Your task to perform on an android device: delete browsing data in the chrome app Image 0: 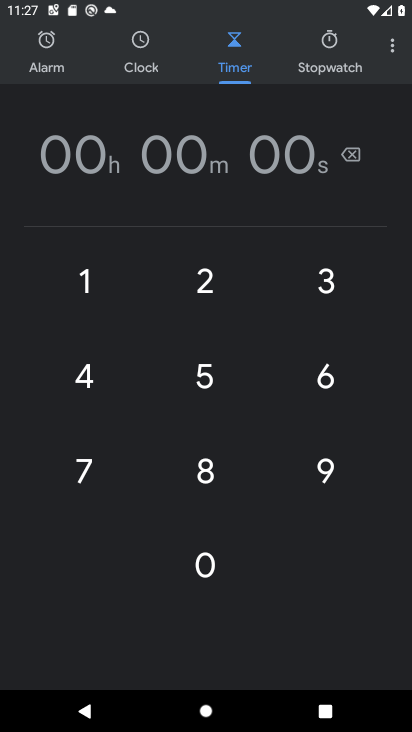
Step 0: press home button
Your task to perform on an android device: delete browsing data in the chrome app Image 1: 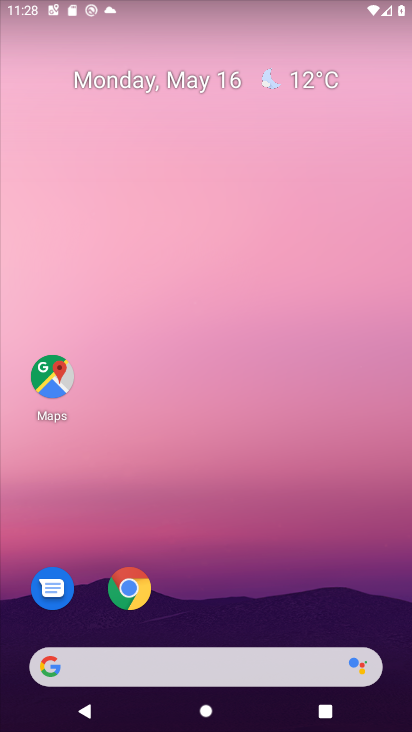
Step 1: click (127, 586)
Your task to perform on an android device: delete browsing data in the chrome app Image 2: 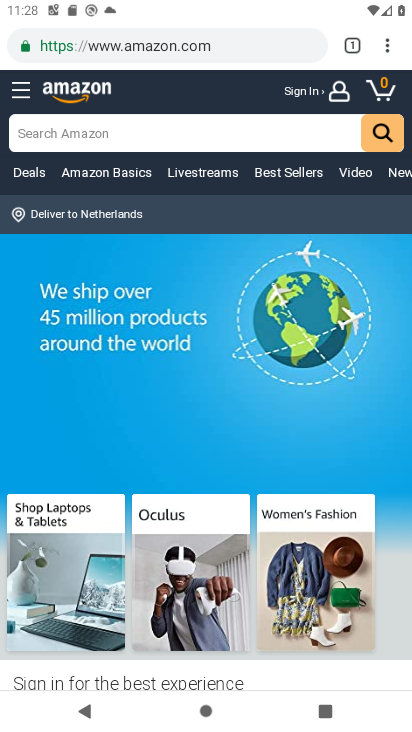
Step 2: click (388, 44)
Your task to perform on an android device: delete browsing data in the chrome app Image 3: 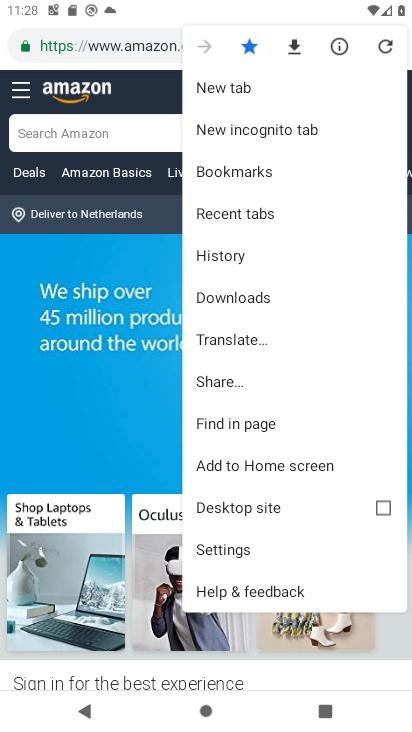
Step 3: click (256, 251)
Your task to perform on an android device: delete browsing data in the chrome app Image 4: 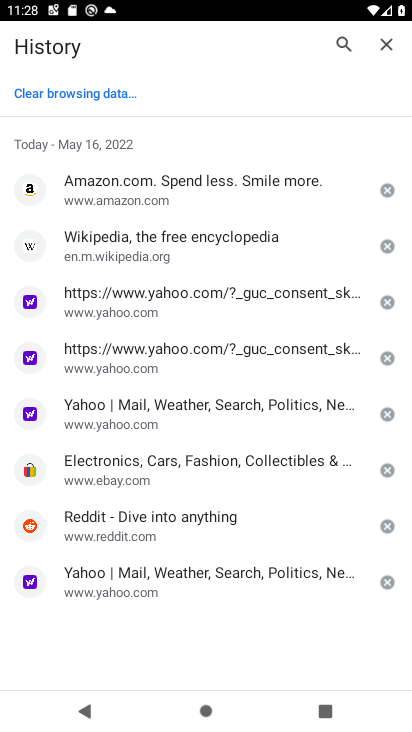
Step 4: click (94, 91)
Your task to perform on an android device: delete browsing data in the chrome app Image 5: 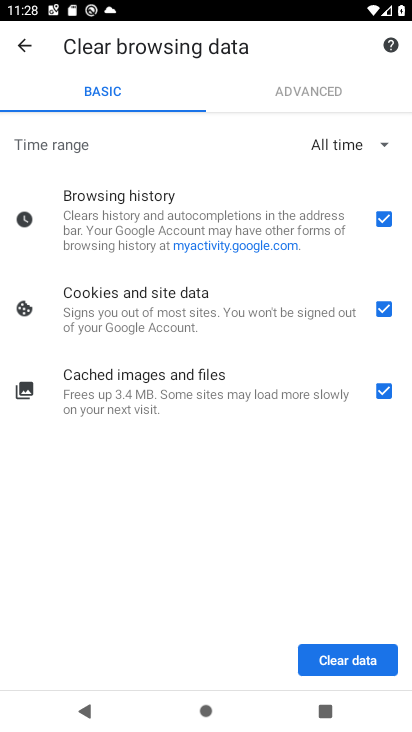
Step 5: click (358, 666)
Your task to perform on an android device: delete browsing data in the chrome app Image 6: 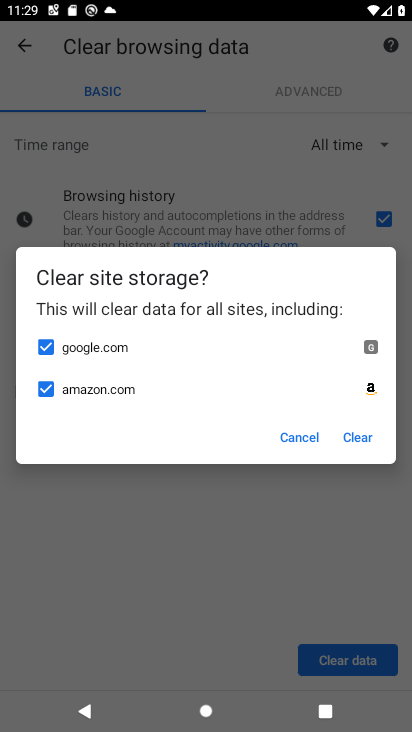
Step 6: click (354, 437)
Your task to perform on an android device: delete browsing data in the chrome app Image 7: 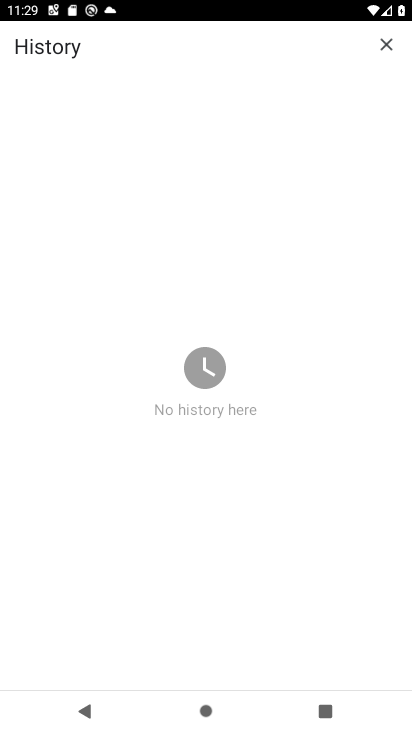
Step 7: task complete